Your task to perform on an android device: Go to Google Image 0: 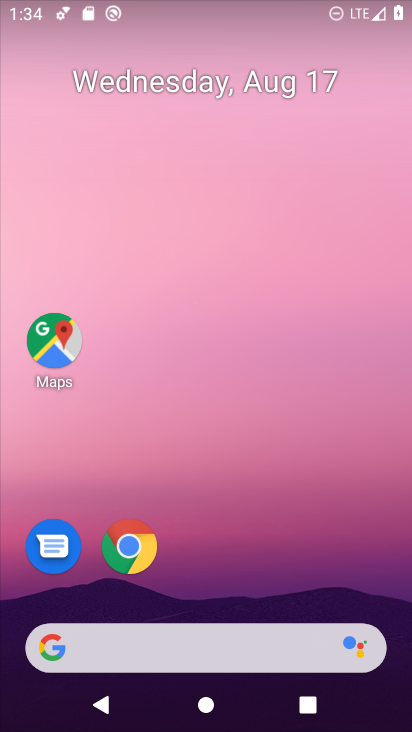
Step 0: click (48, 645)
Your task to perform on an android device: Go to Google Image 1: 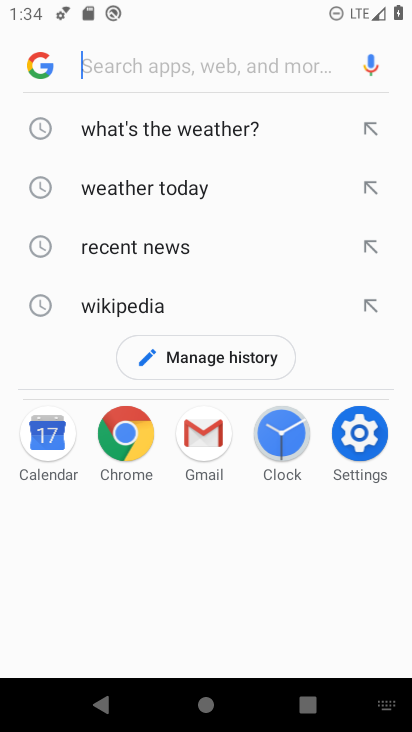
Step 1: click (35, 54)
Your task to perform on an android device: Go to Google Image 2: 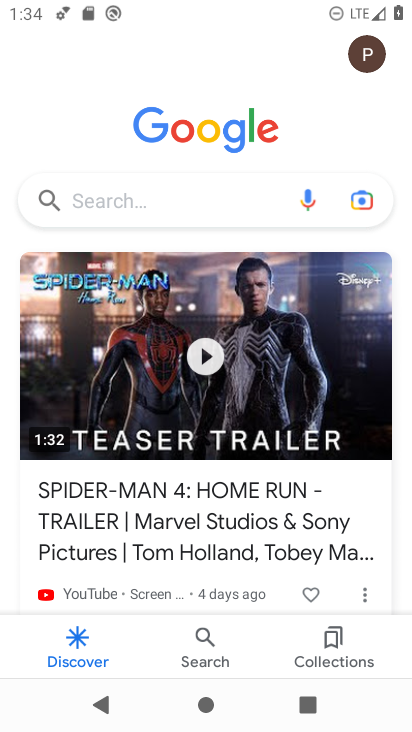
Step 2: task complete